Your task to perform on an android device: Go to location settings Image 0: 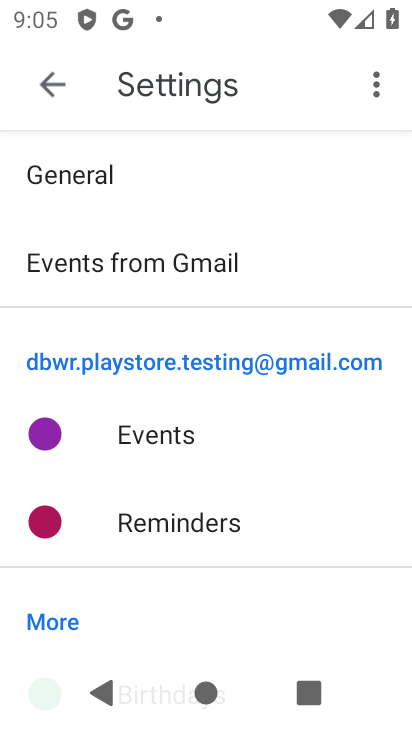
Step 0: press back button
Your task to perform on an android device: Go to location settings Image 1: 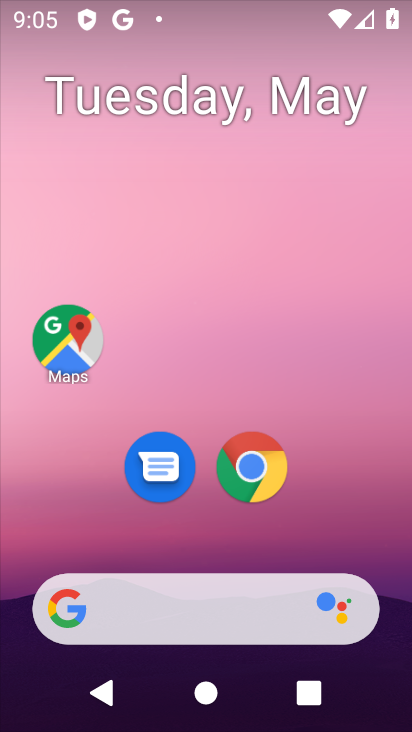
Step 1: drag from (380, 541) to (203, 43)
Your task to perform on an android device: Go to location settings Image 2: 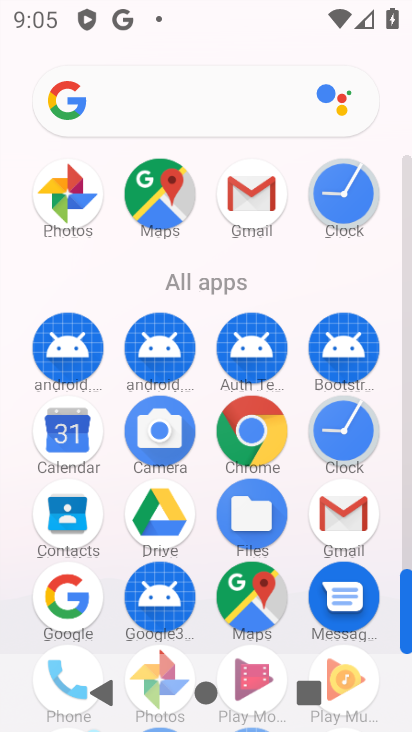
Step 2: drag from (10, 558) to (2, 265)
Your task to perform on an android device: Go to location settings Image 3: 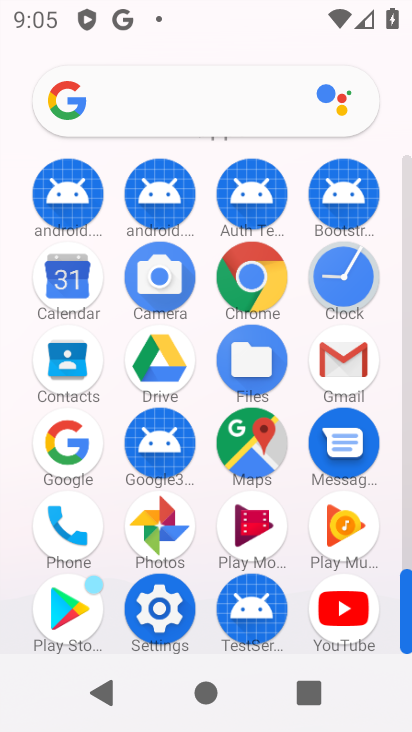
Step 3: click (160, 602)
Your task to perform on an android device: Go to location settings Image 4: 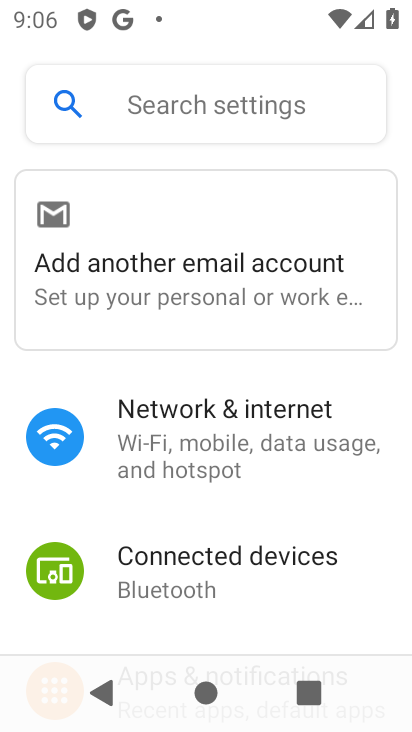
Step 4: drag from (284, 556) to (280, 147)
Your task to perform on an android device: Go to location settings Image 5: 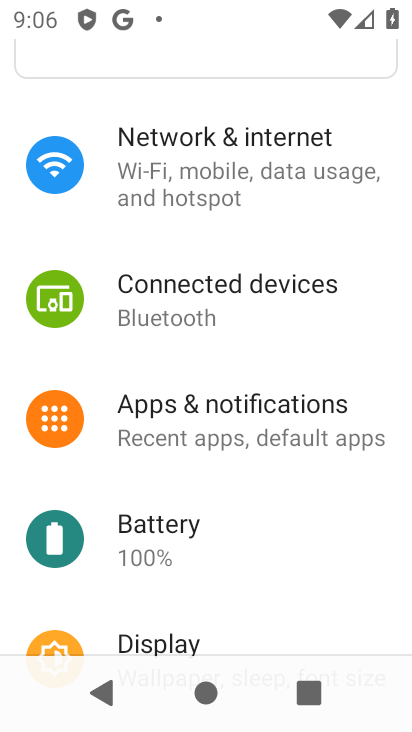
Step 5: drag from (294, 550) to (272, 134)
Your task to perform on an android device: Go to location settings Image 6: 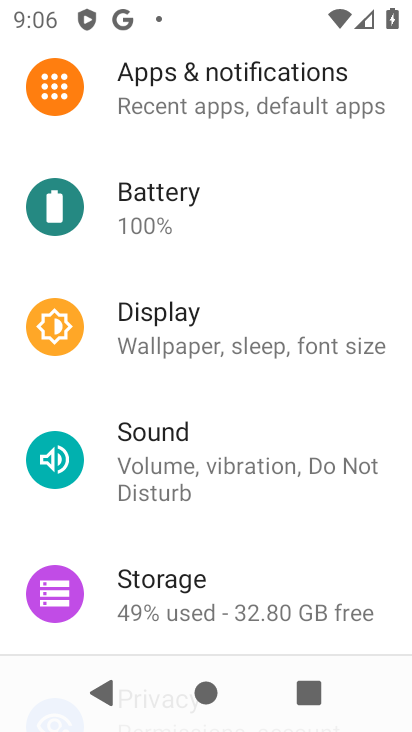
Step 6: drag from (253, 524) to (275, 101)
Your task to perform on an android device: Go to location settings Image 7: 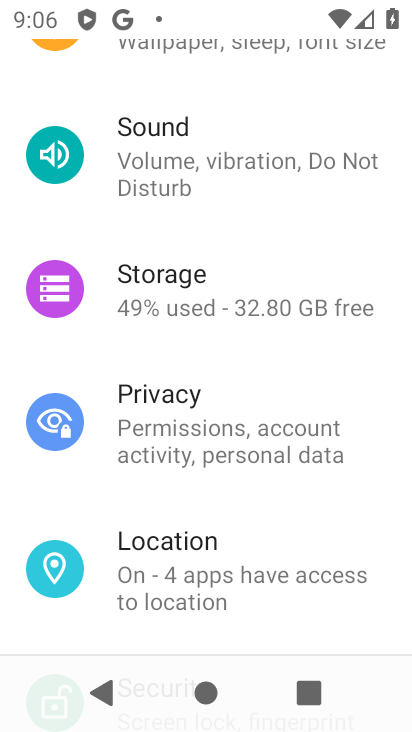
Step 7: click (209, 564)
Your task to perform on an android device: Go to location settings Image 8: 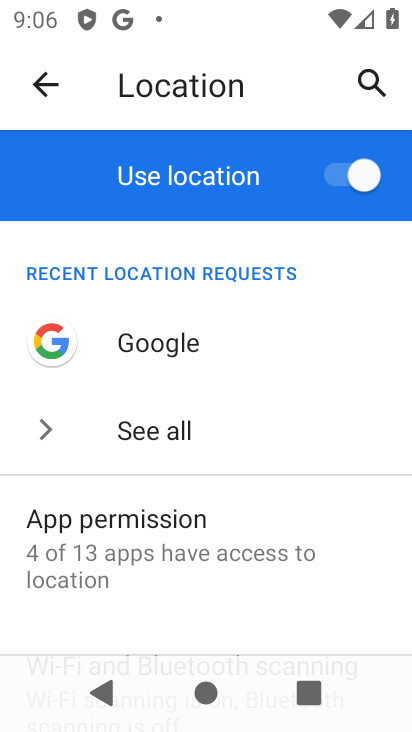
Step 8: drag from (208, 513) to (217, 146)
Your task to perform on an android device: Go to location settings Image 9: 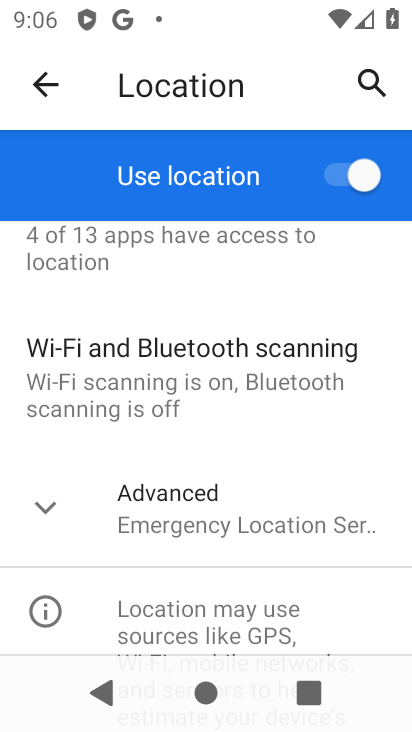
Step 9: click (73, 510)
Your task to perform on an android device: Go to location settings Image 10: 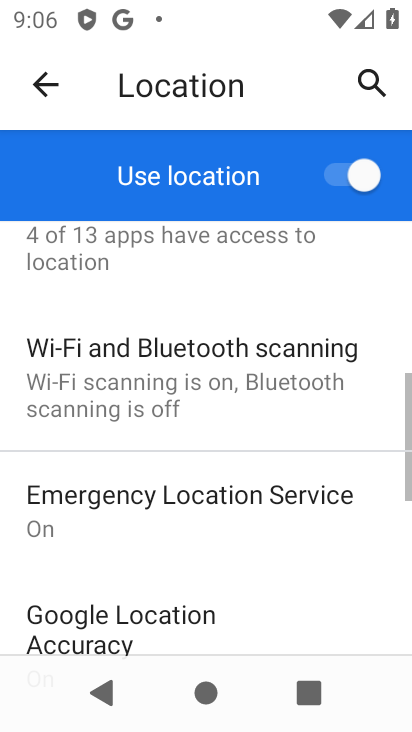
Step 10: task complete